Your task to perform on an android device: toggle location history Image 0: 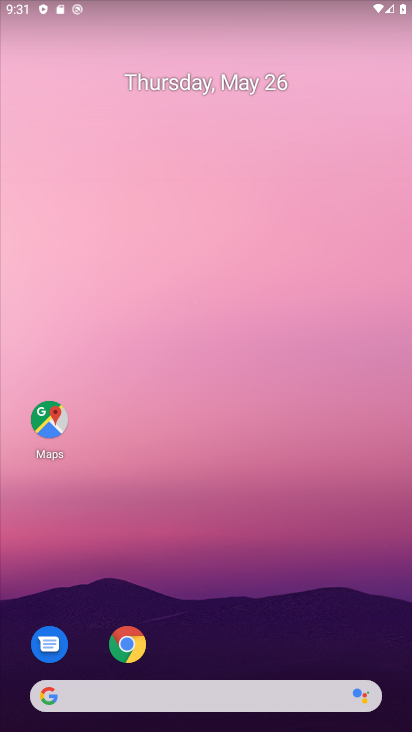
Step 0: drag from (243, 649) to (344, 128)
Your task to perform on an android device: toggle location history Image 1: 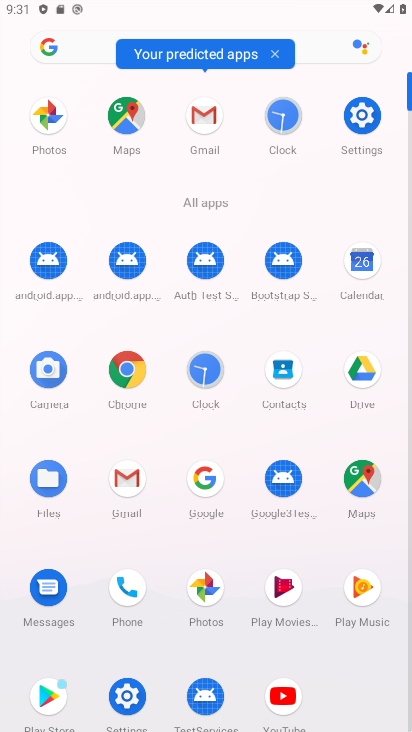
Step 1: drag from (220, 633) to (258, 365)
Your task to perform on an android device: toggle location history Image 2: 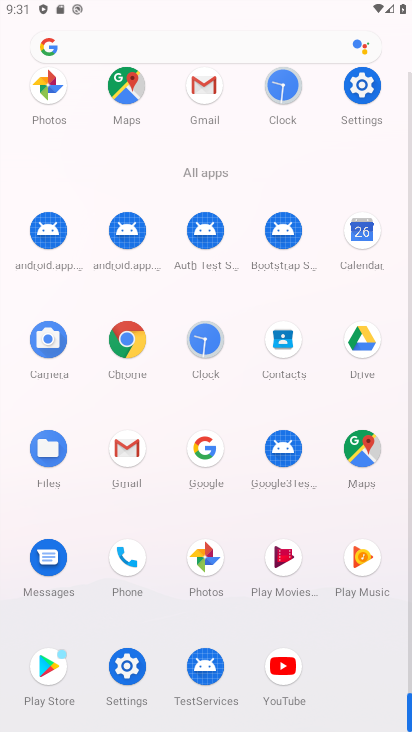
Step 2: click (124, 651)
Your task to perform on an android device: toggle location history Image 3: 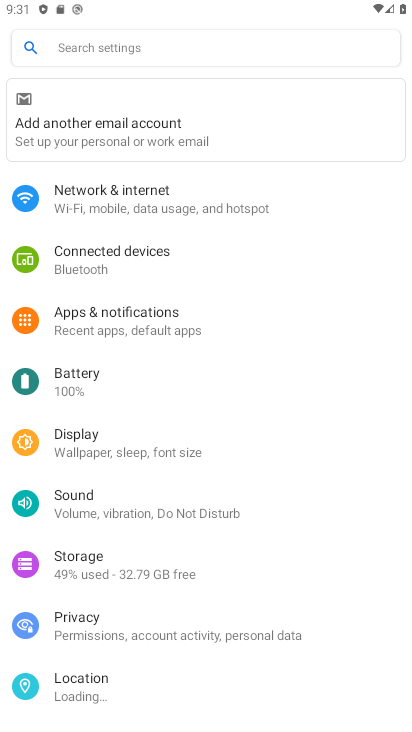
Step 3: drag from (159, 621) to (234, 403)
Your task to perform on an android device: toggle location history Image 4: 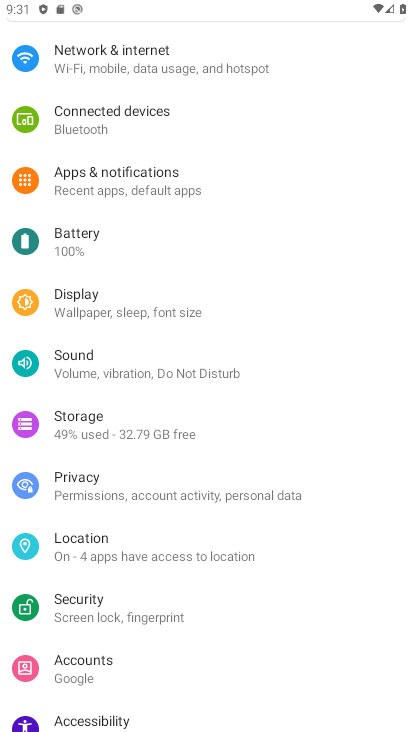
Step 4: click (116, 554)
Your task to perform on an android device: toggle location history Image 5: 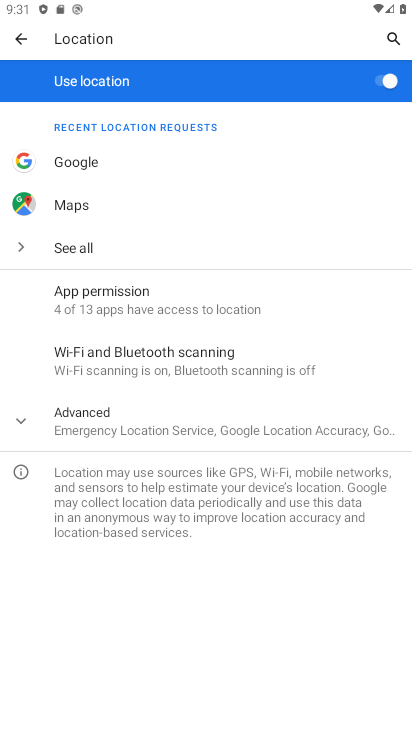
Step 5: click (139, 415)
Your task to perform on an android device: toggle location history Image 6: 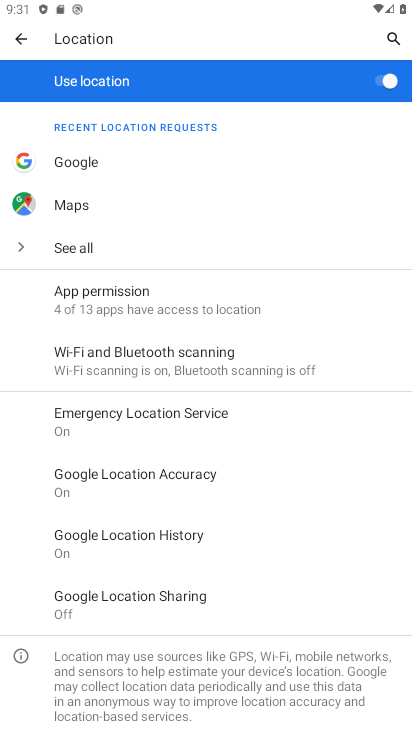
Step 6: click (230, 546)
Your task to perform on an android device: toggle location history Image 7: 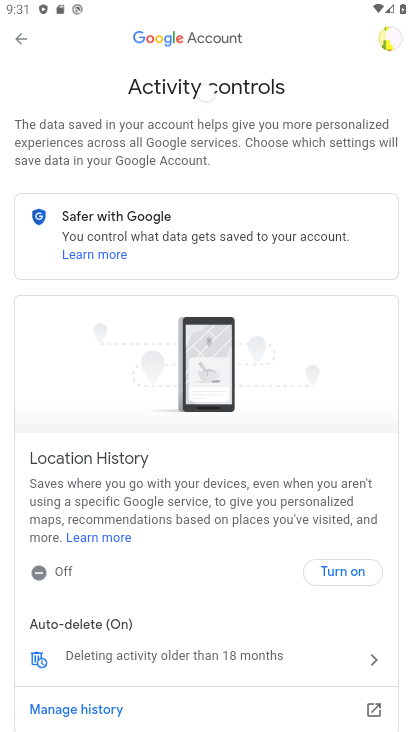
Step 7: click (334, 566)
Your task to perform on an android device: toggle location history Image 8: 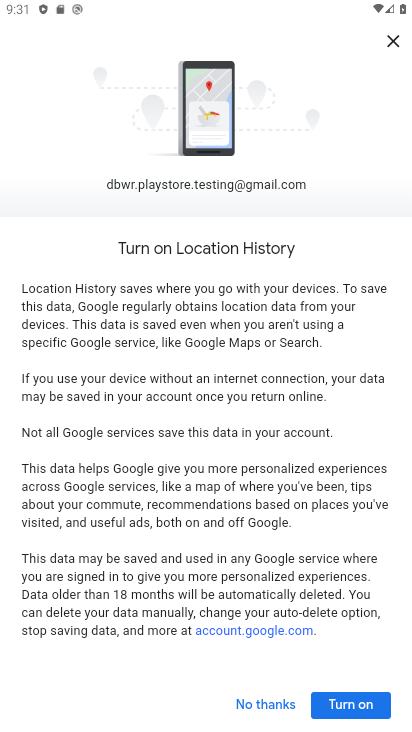
Step 8: click (376, 710)
Your task to perform on an android device: toggle location history Image 9: 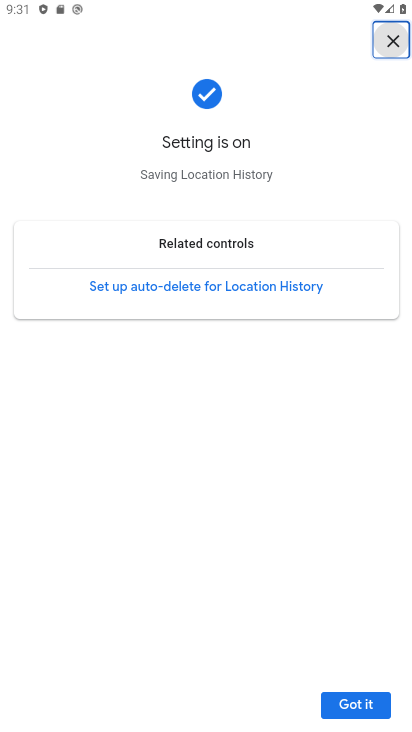
Step 9: click (368, 704)
Your task to perform on an android device: toggle location history Image 10: 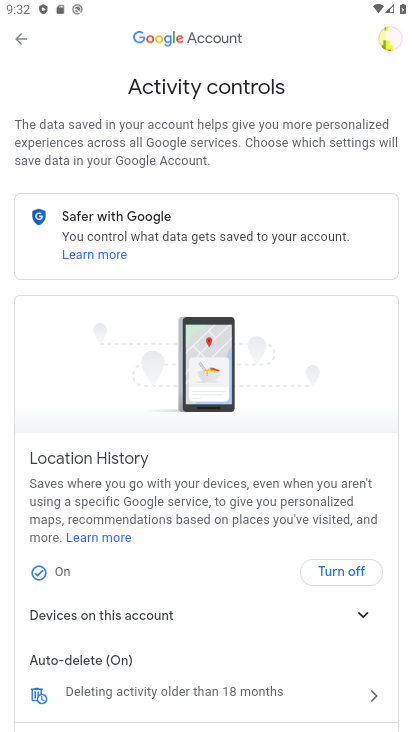
Step 10: task complete